Your task to perform on an android device: search for starred emails in the gmail app Image 0: 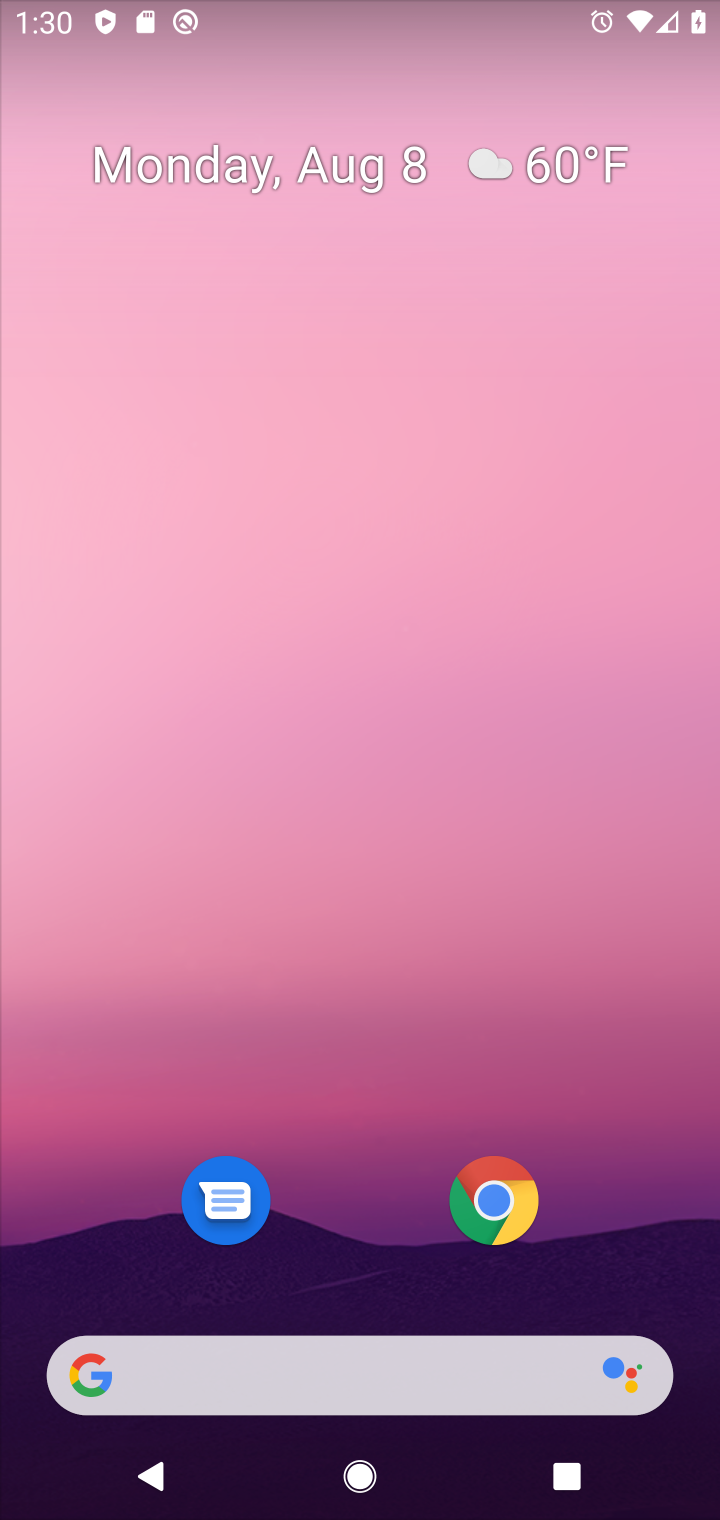
Step 0: press home button
Your task to perform on an android device: search for starred emails in the gmail app Image 1: 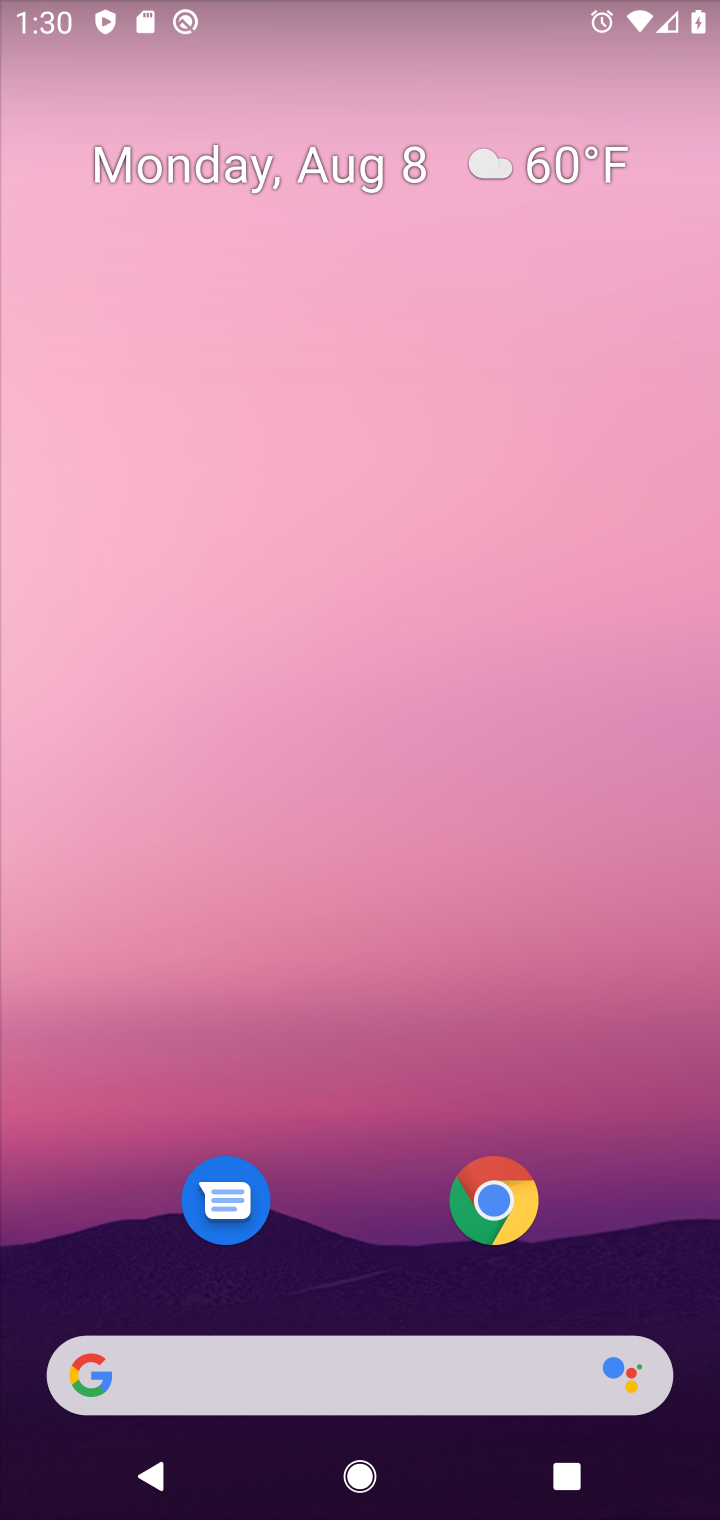
Step 1: press home button
Your task to perform on an android device: search for starred emails in the gmail app Image 2: 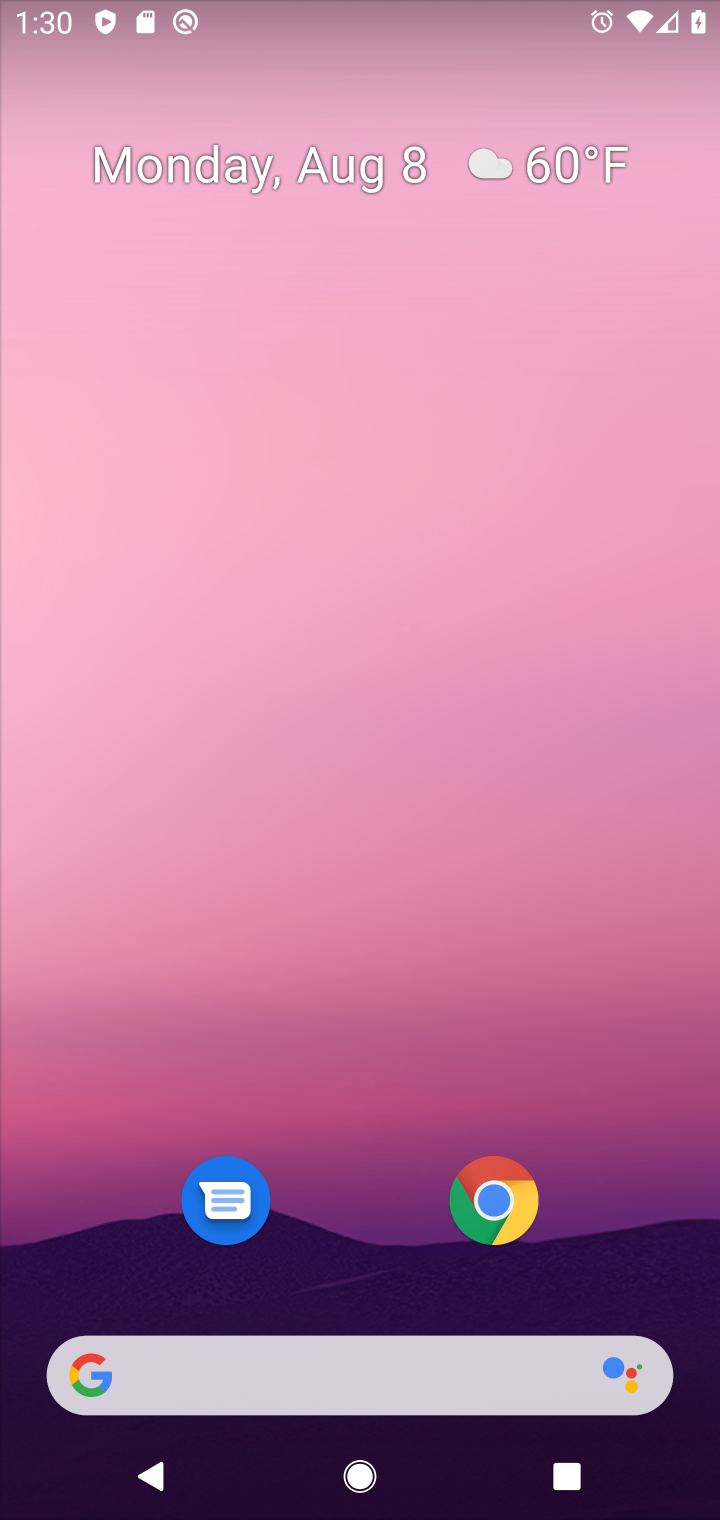
Step 2: drag from (360, 1027) to (427, 89)
Your task to perform on an android device: search for starred emails in the gmail app Image 3: 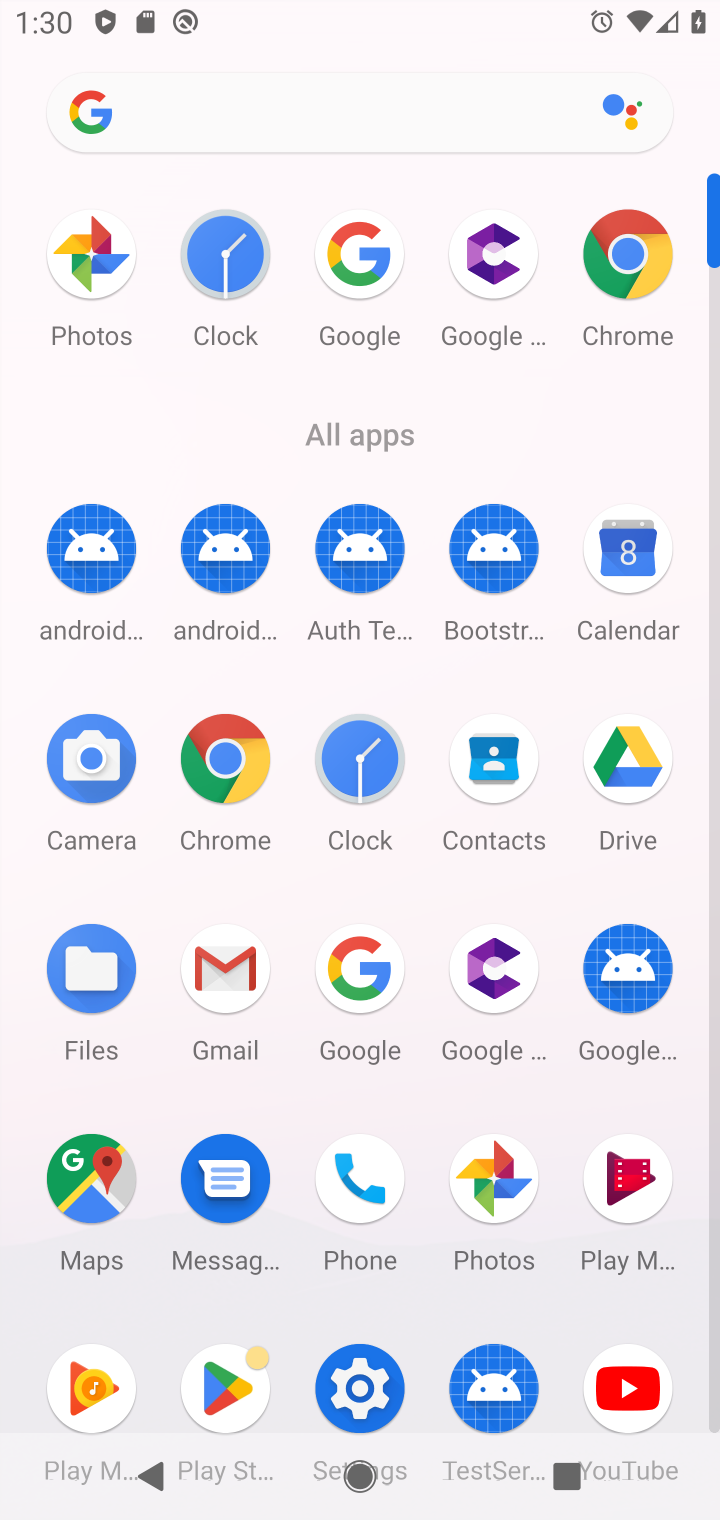
Step 3: click (218, 957)
Your task to perform on an android device: search for starred emails in the gmail app Image 4: 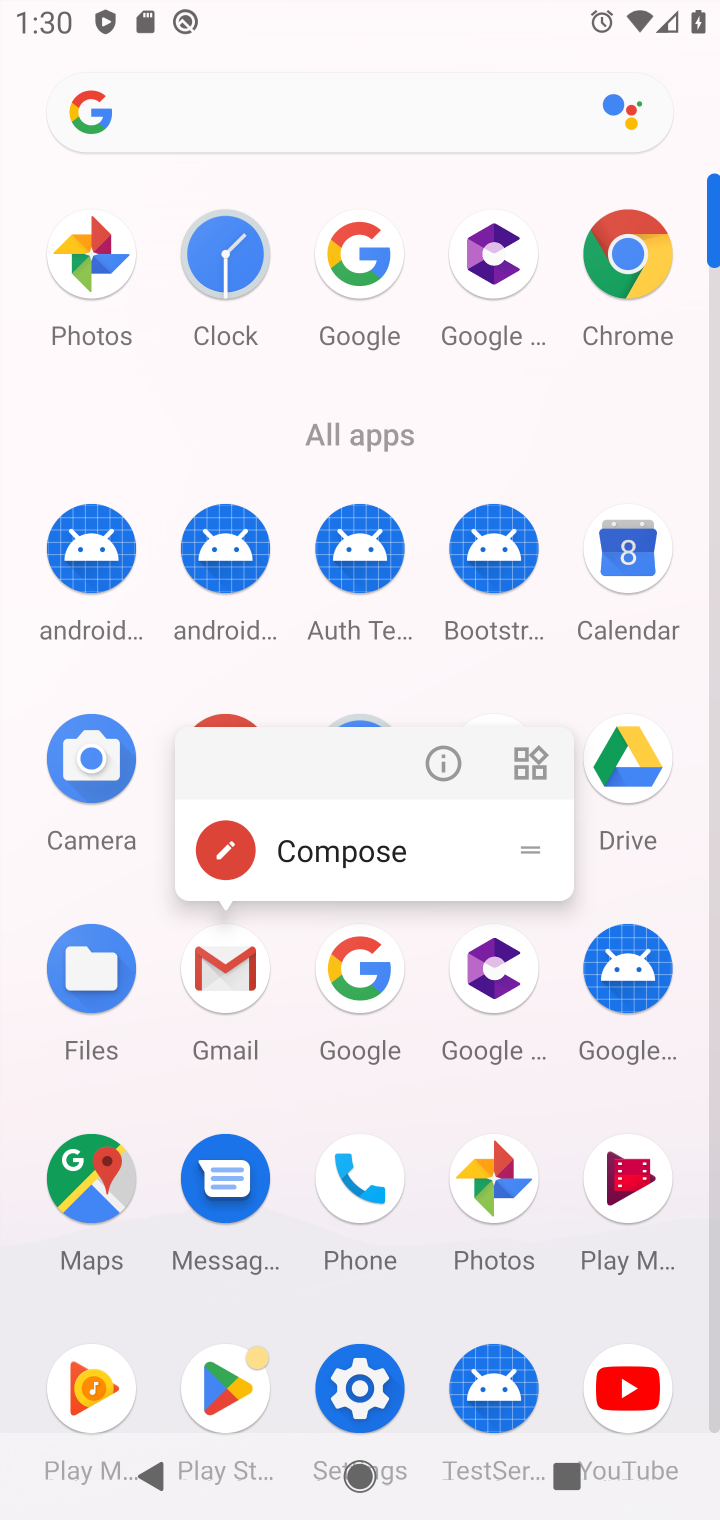
Step 4: click (217, 969)
Your task to perform on an android device: search for starred emails in the gmail app Image 5: 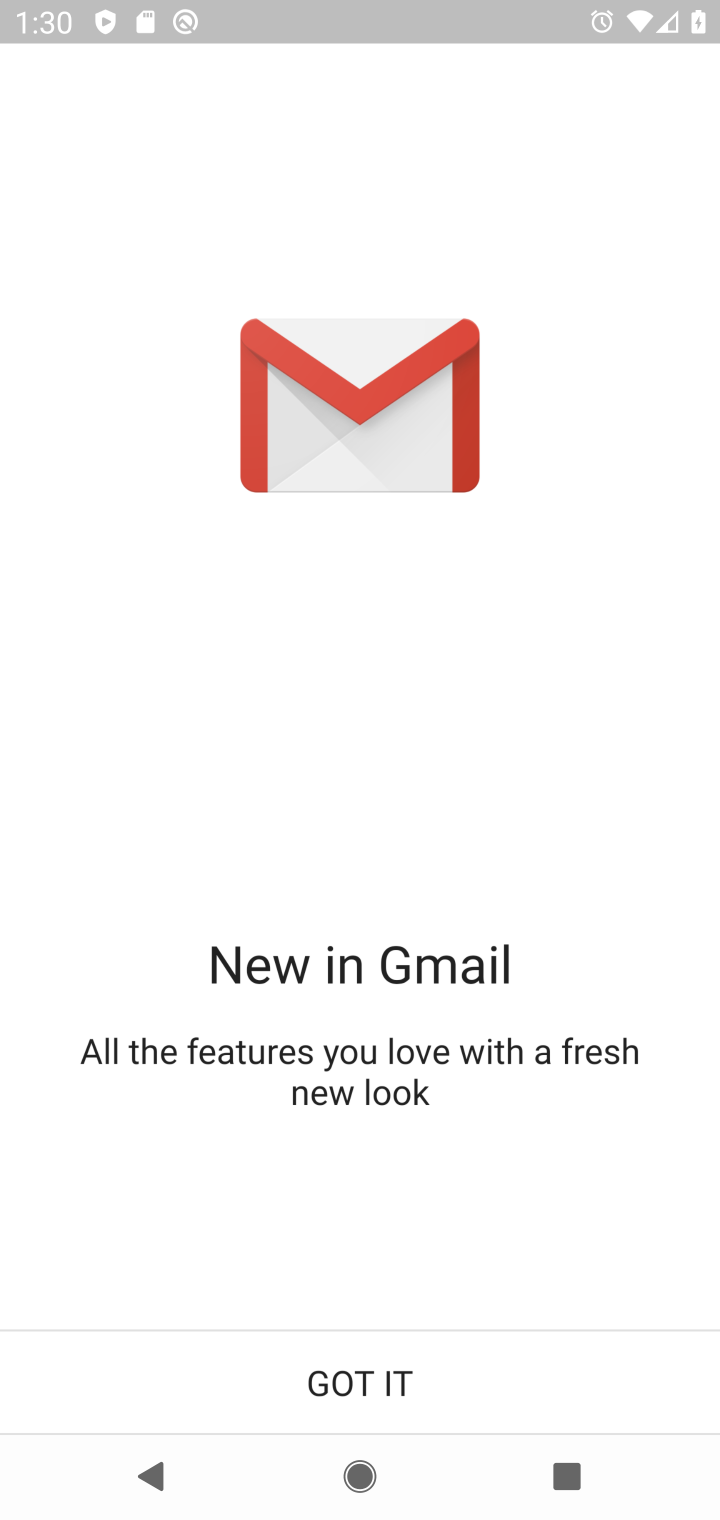
Step 5: click (217, 969)
Your task to perform on an android device: search for starred emails in the gmail app Image 6: 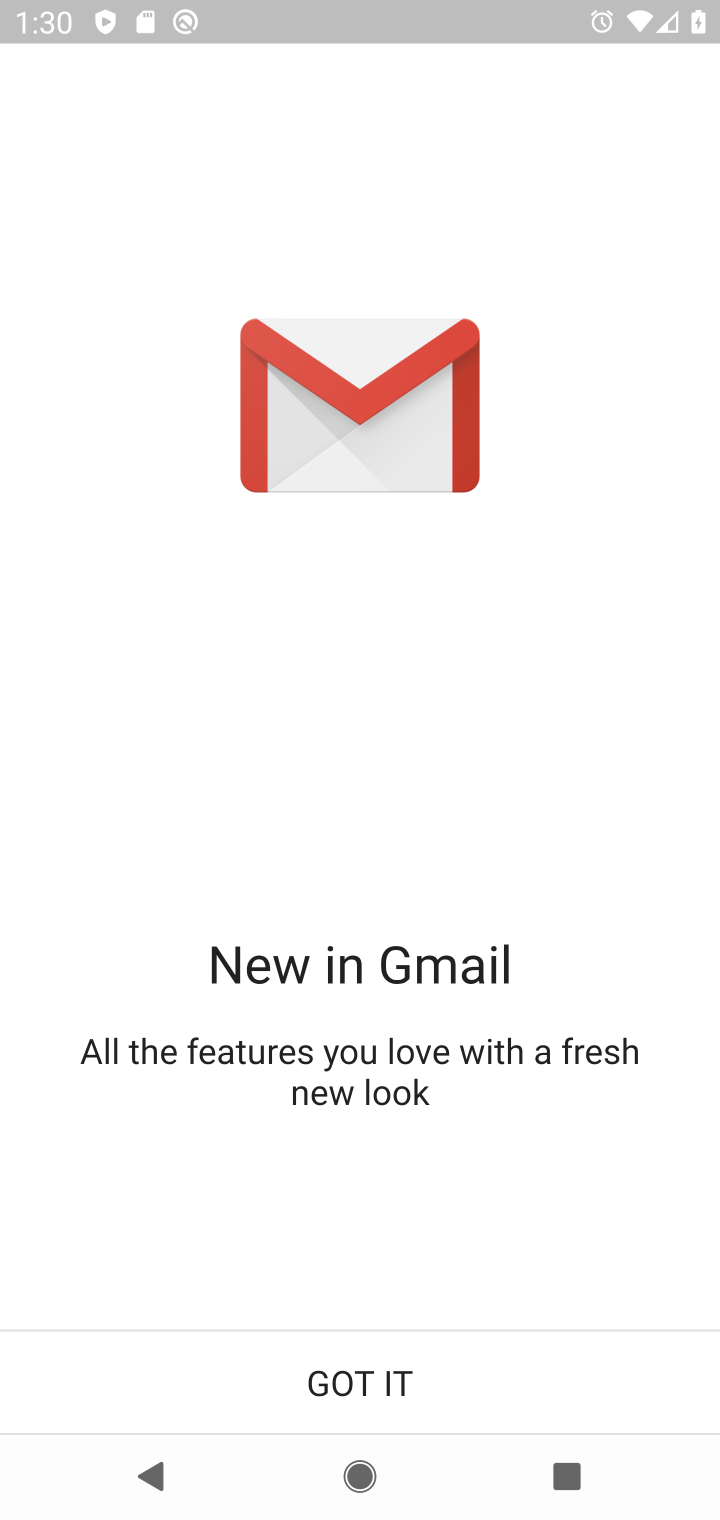
Step 6: click (362, 1383)
Your task to perform on an android device: search for starred emails in the gmail app Image 7: 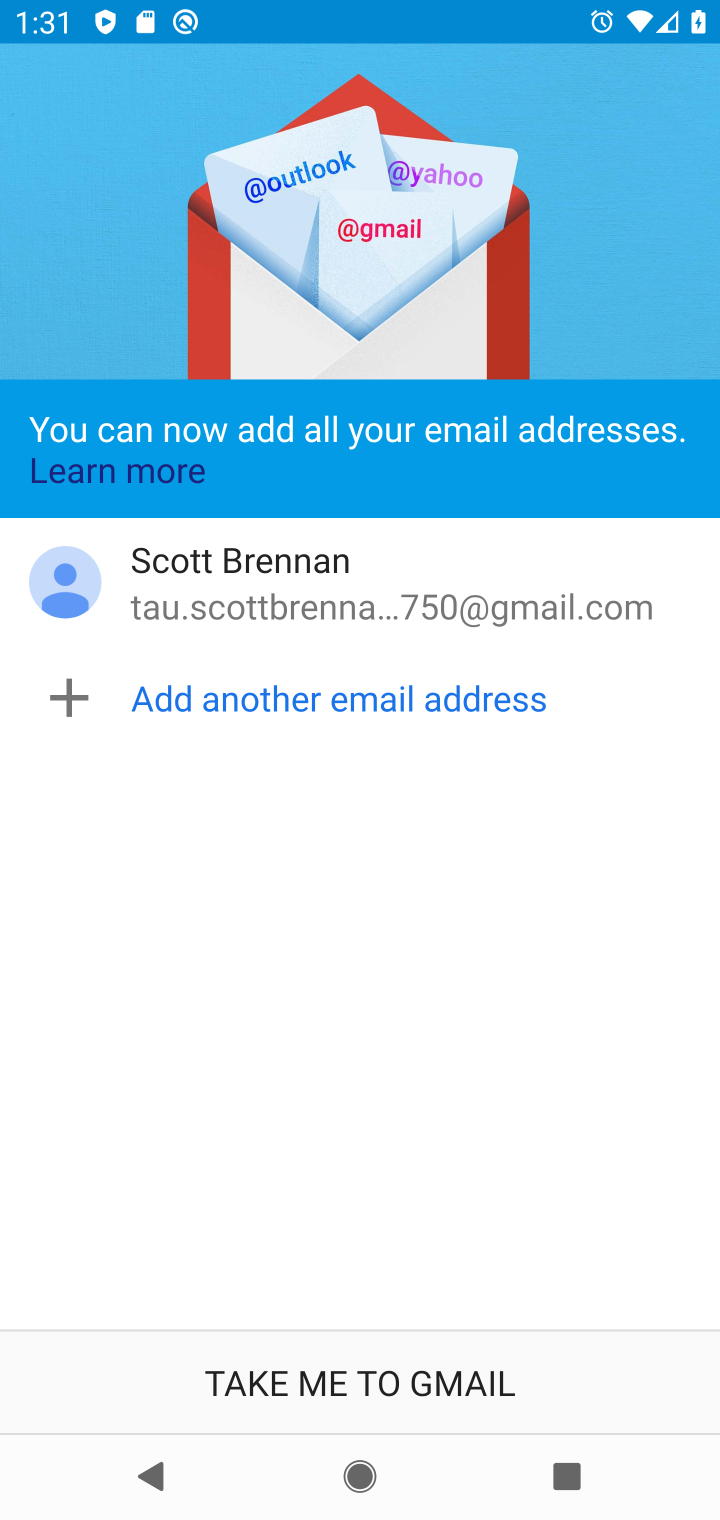
Step 7: click (367, 1370)
Your task to perform on an android device: search for starred emails in the gmail app Image 8: 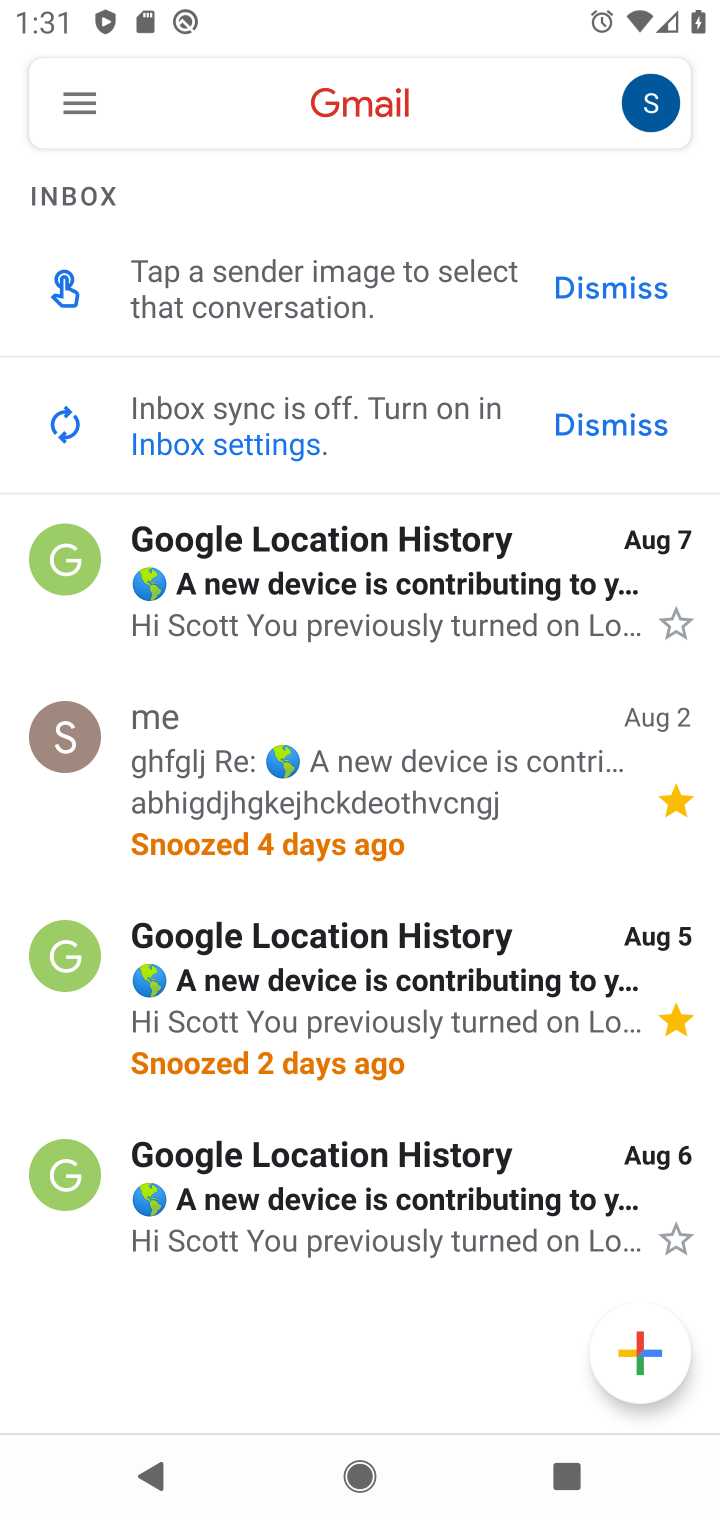
Step 8: click (65, 98)
Your task to perform on an android device: search for starred emails in the gmail app Image 9: 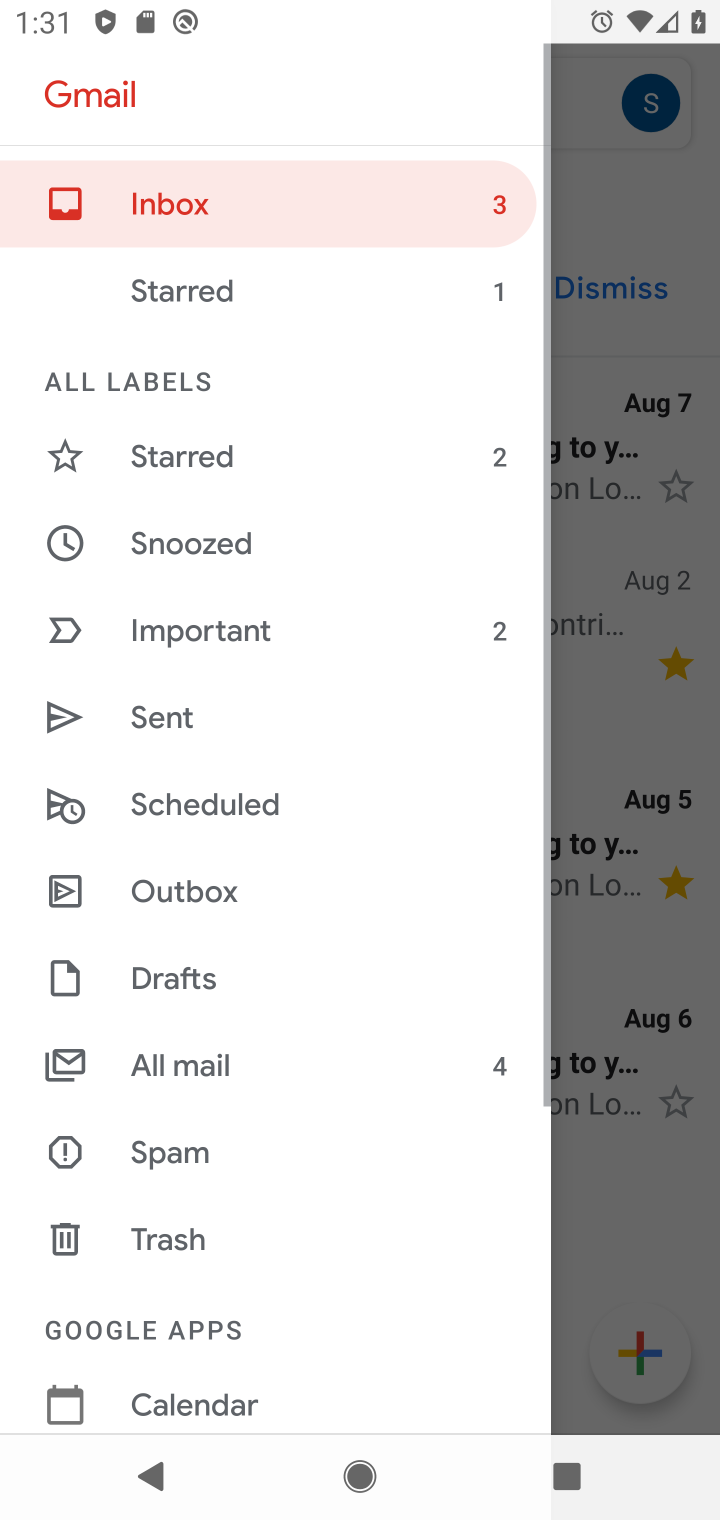
Step 9: click (181, 447)
Your task to perform on an android device: search for starred emails in the gmail app Image 10: 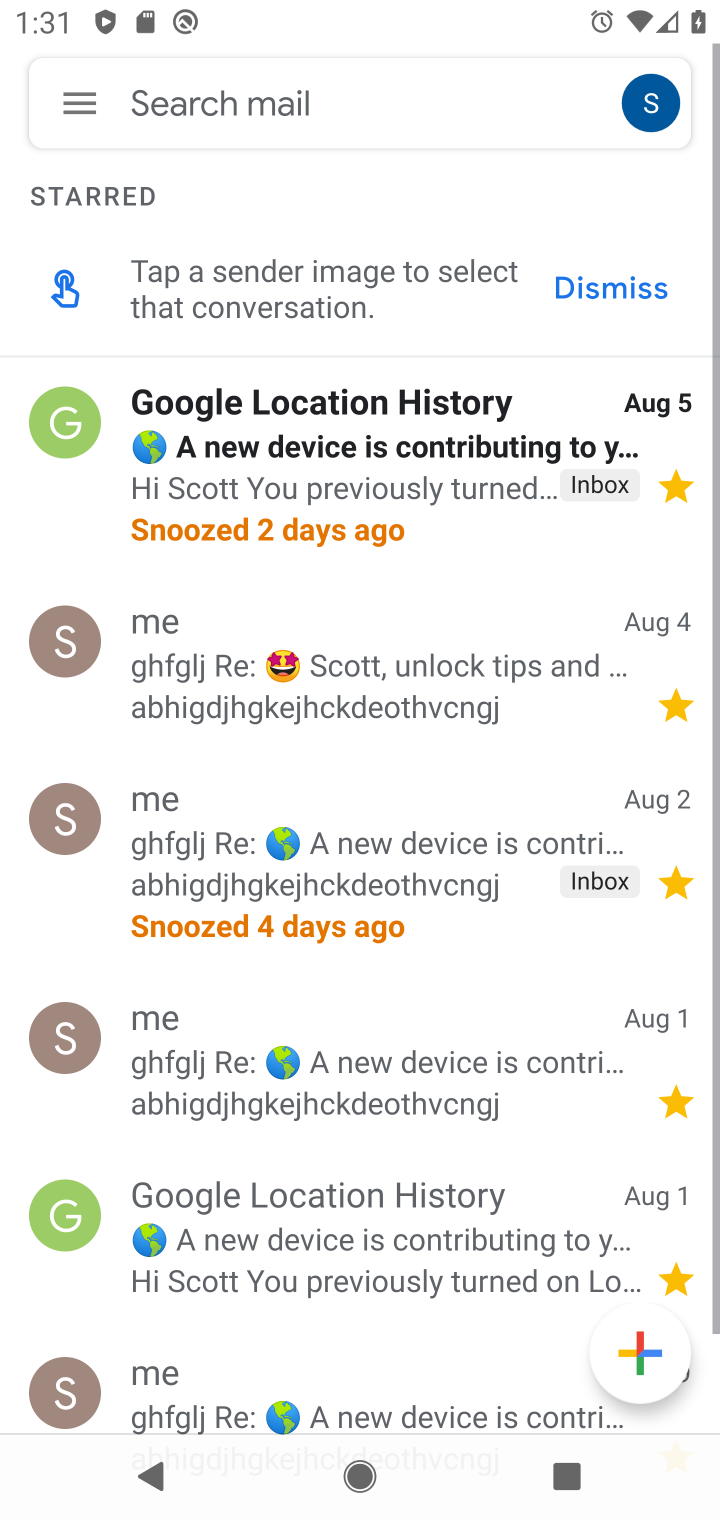
Step 10: task complete